Your task to perform on an android device: Go to ESPN.com Image 0: 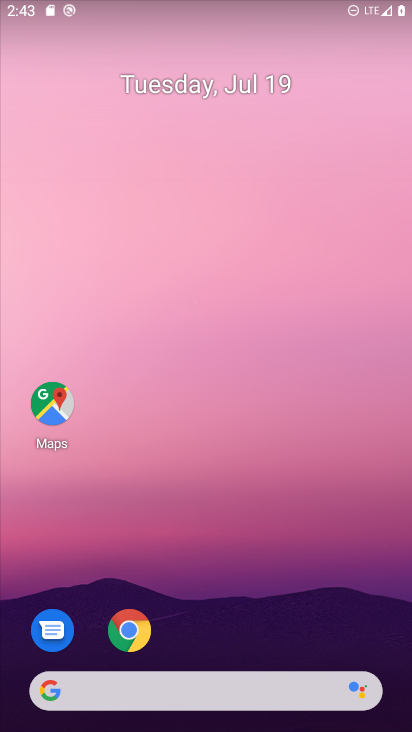
Step 0: click (126, 627)
Your task to perform on an android device: Go to ESPN.com Image 1: 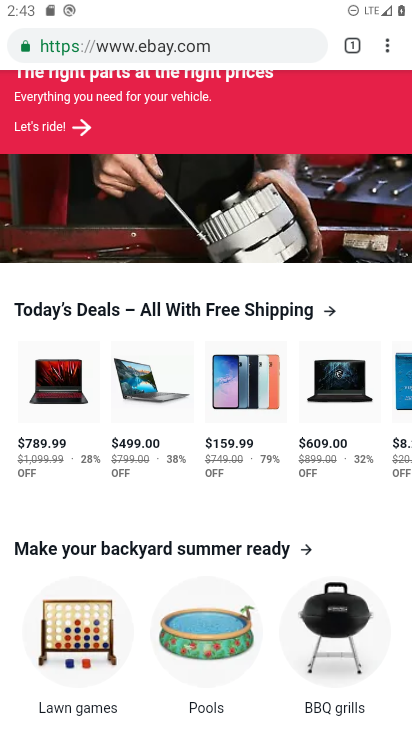
Step 1: click (269, 44)
Your task to perform on an android device: Go to ESPN.com Image 2: 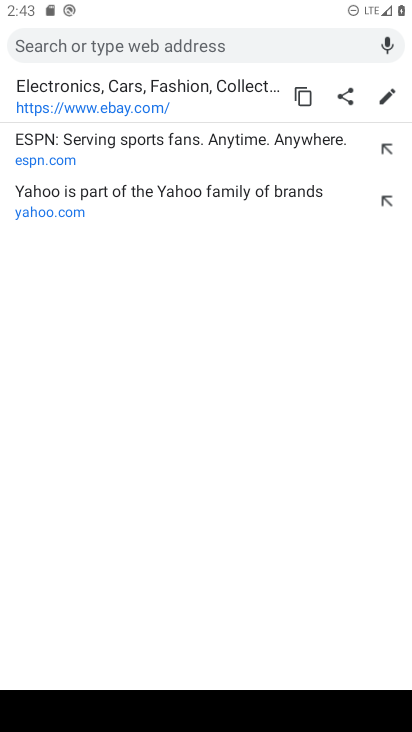
Step 2: type "ESPN.com"
Your task to perform on an android device: Go to ESPN.com Image 3: 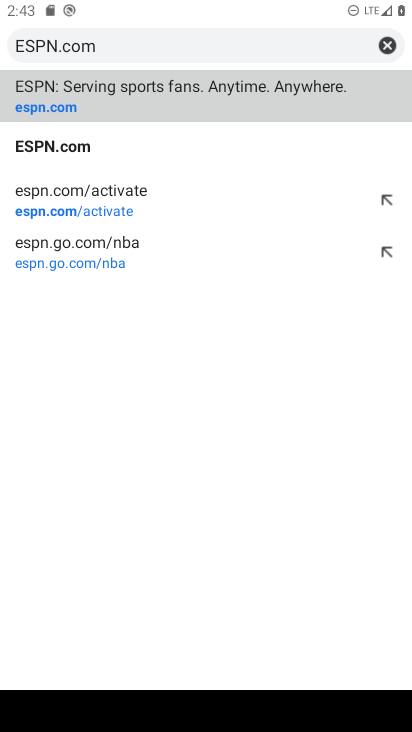
Step 3: click (72, 93)
Your task to perform on an android device: Go to ESPN.com Image 4: 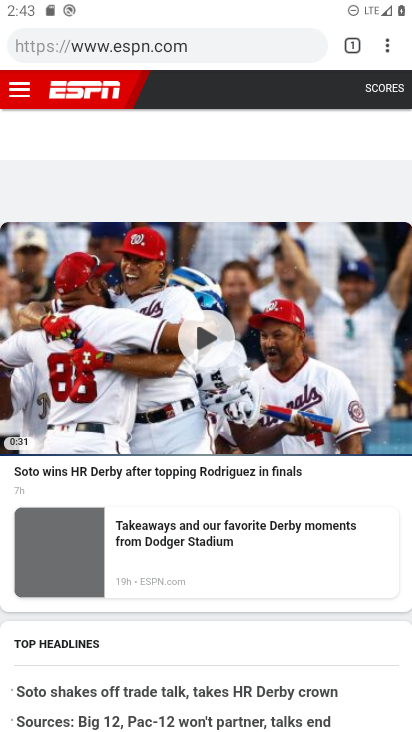
Step 4: task complete